Your task to perform on an android device: Open display settings Image 0: 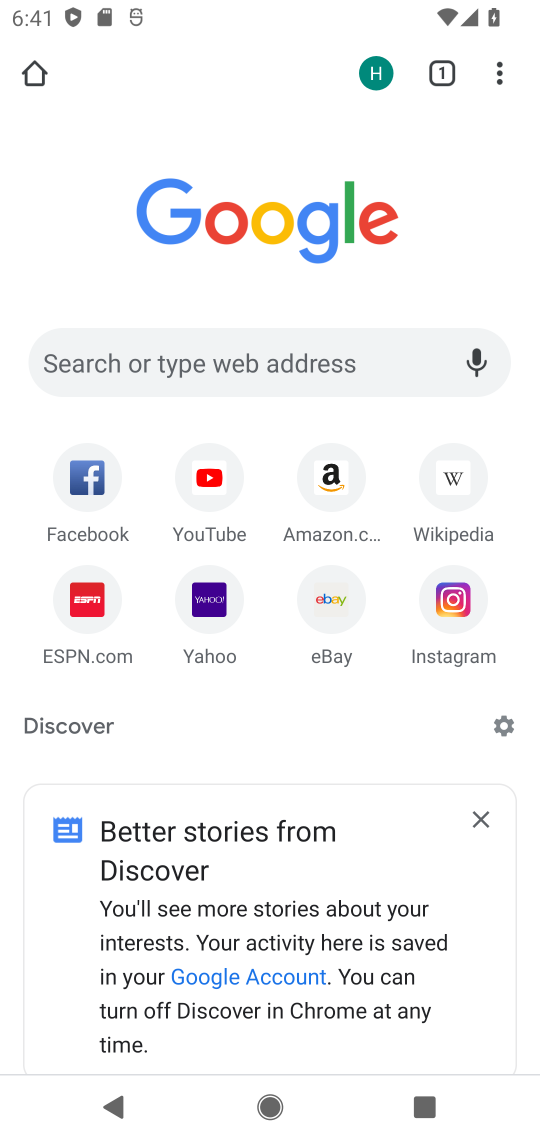
Step 0: press home button
Your task to perform on an android device: Open display settings Image 1: 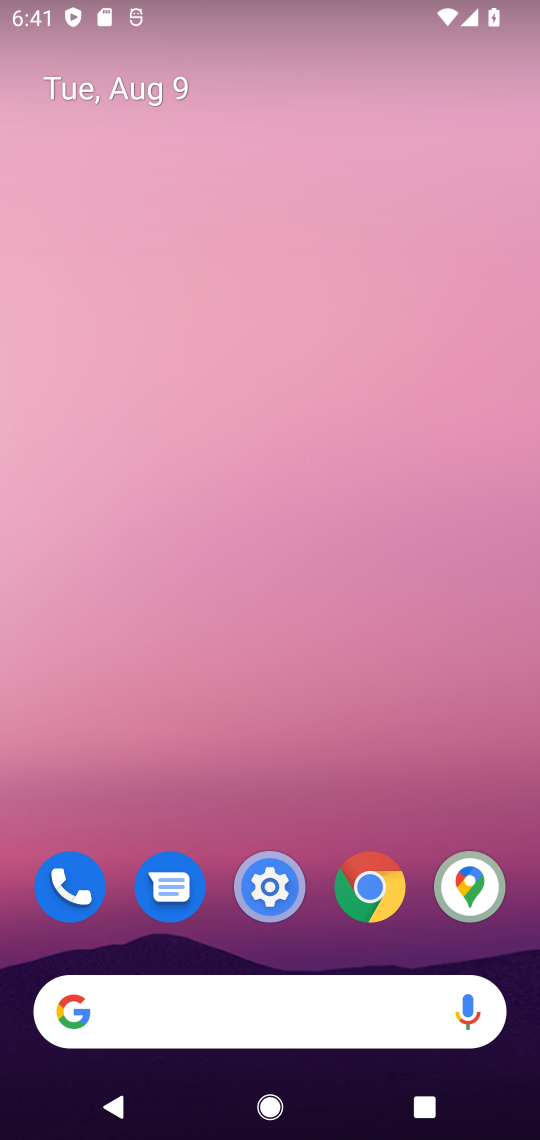
Step 1: click (262, 881)
Your task to perform on an android device: Open display settings Image 2: 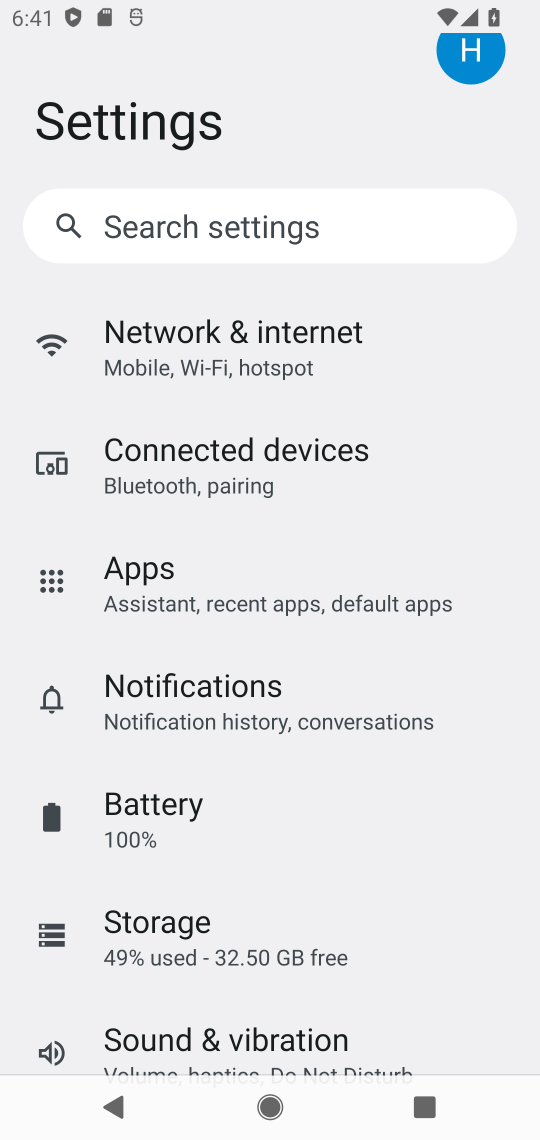
Step 2: drag from (262, 881) to (225, 305)
Your task to perform on an android device: Open display settings Image 3: 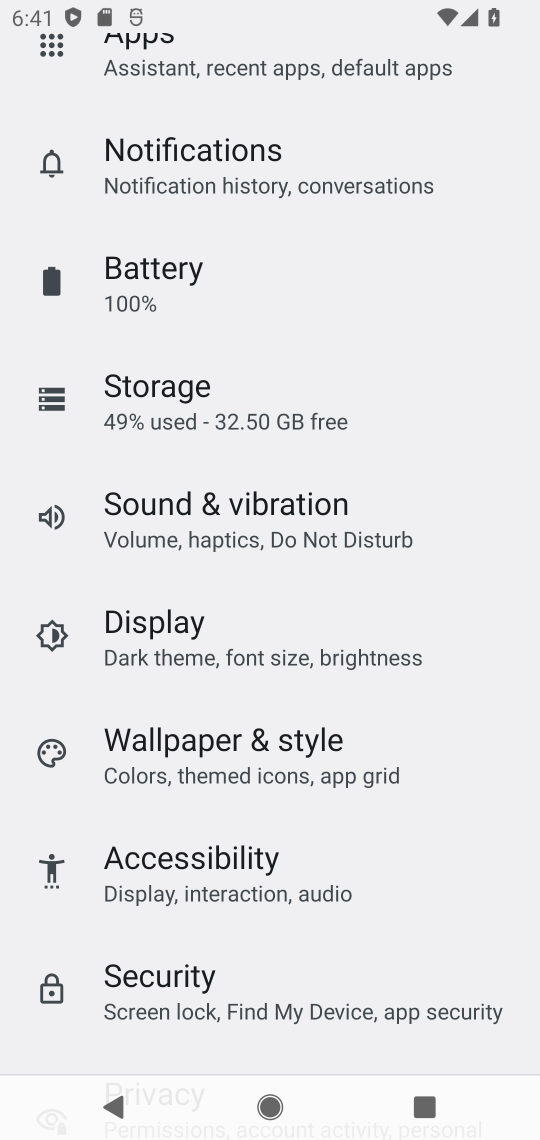
Step 3: click (278, 634)
Your task to perform on an android device: Open display settings Image 4: 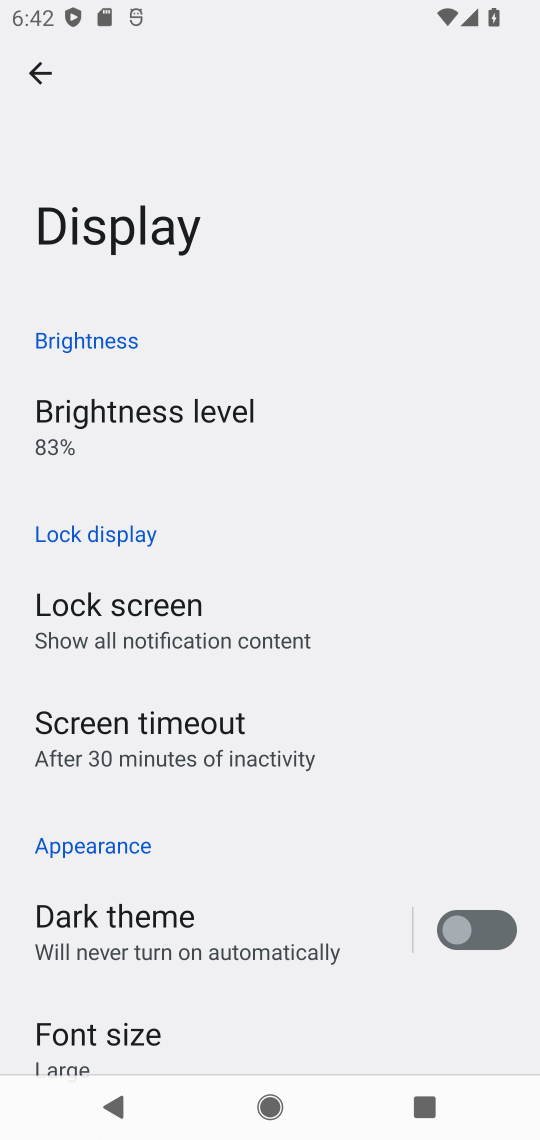
Step 4: task complete